Your task to perform on an android device: Open the stopwatch Image 0: 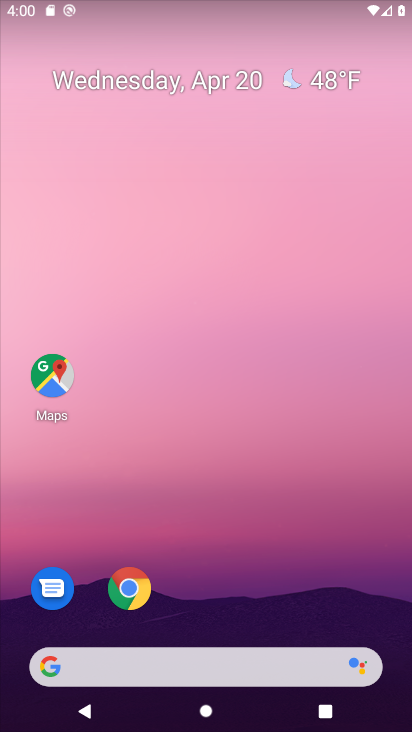
Step 0: drag from (332, 587) to (346, 200)
Your task to perform on an android device: Open the stopwatch Image 1: 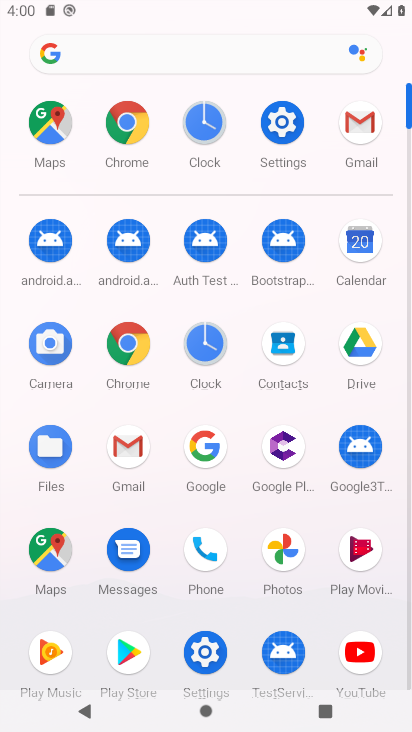
Step 1: click (205, 338)
Your task to perform on an android device: Open the stopwatch Image 2: 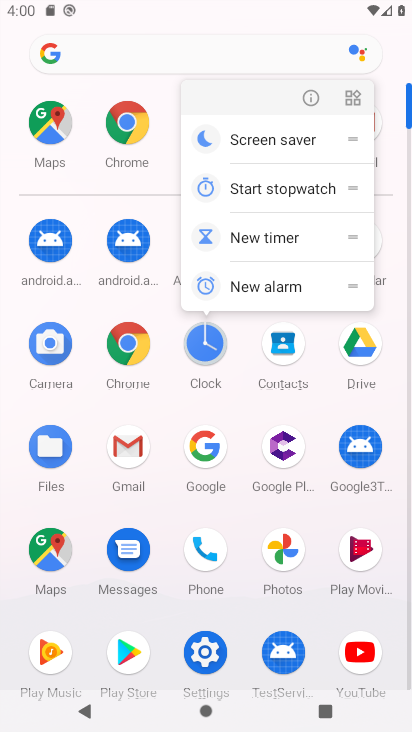
Step 2: click (205, 326)
Your task to perform on an android device: Open the stopwatch Image 3: 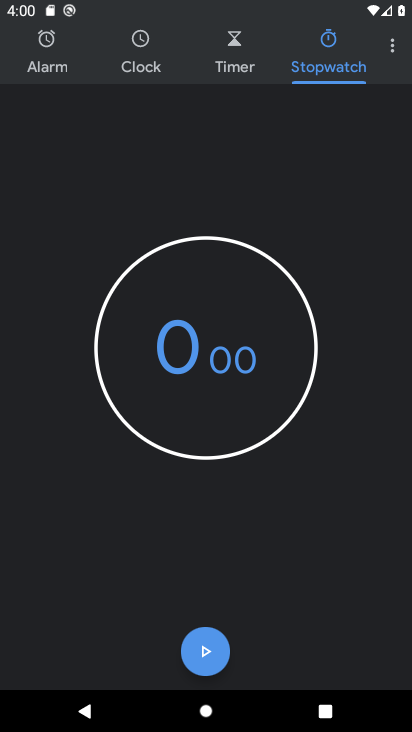
Step 3: task complete